Your task to perform on an android device: toggle show notifications on the lock screen Image 0: 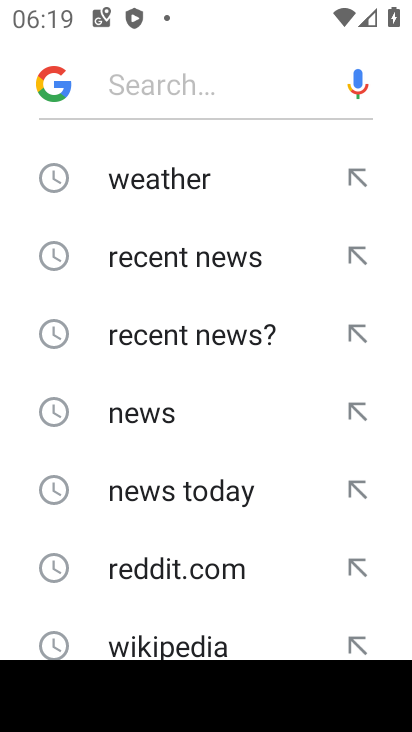
Step 0: press home button
Your task to perform on an android device: toggle show notifications on the lock screen Image 1: 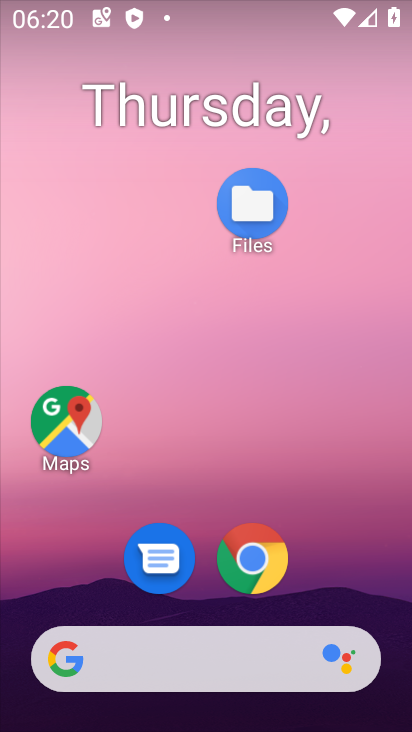
Step 1: drag from (309, 580) to (328, 174)
Your task to perform on an android device: toggle show notifications on the lock screen Image 2: 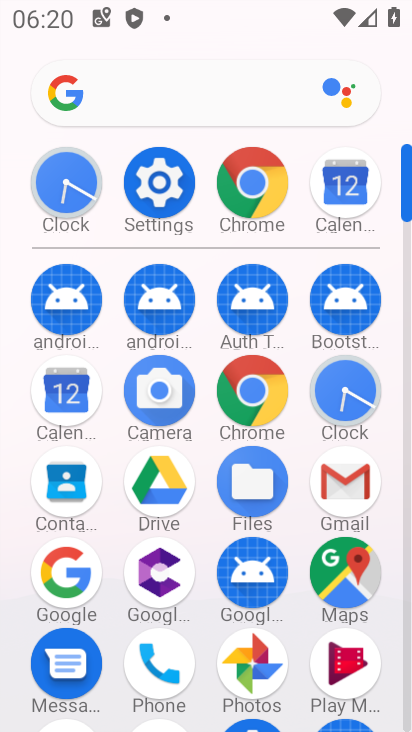
Step 2: click (165, 192)
Your task to perform on an android device: toggle show notifications on the lock screen Image 3: 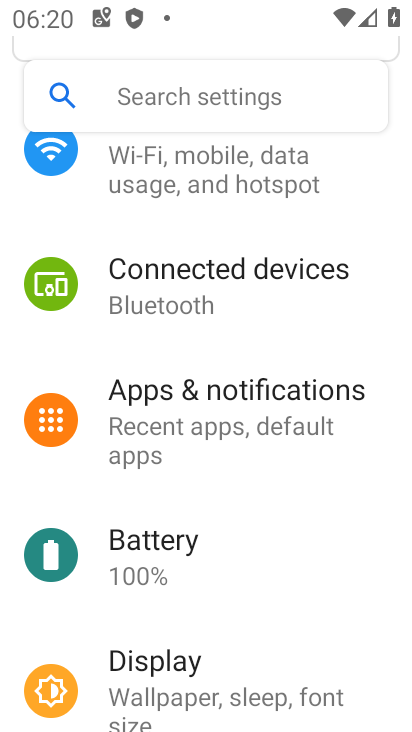
Step 3: drag from (221, 628) to (239, 318)
Your task to perform on an android device: toggle show notifications on the lock screen Image 4: 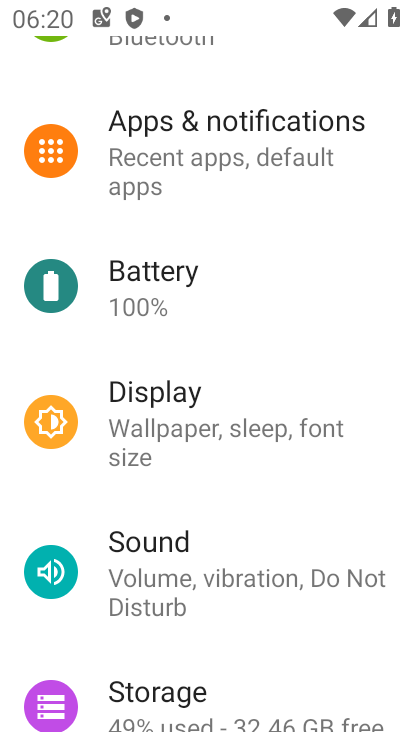
Step 4: click (214, 354)
Your task to perform on an android device: toggle show notifications on the lock screen Image 5: 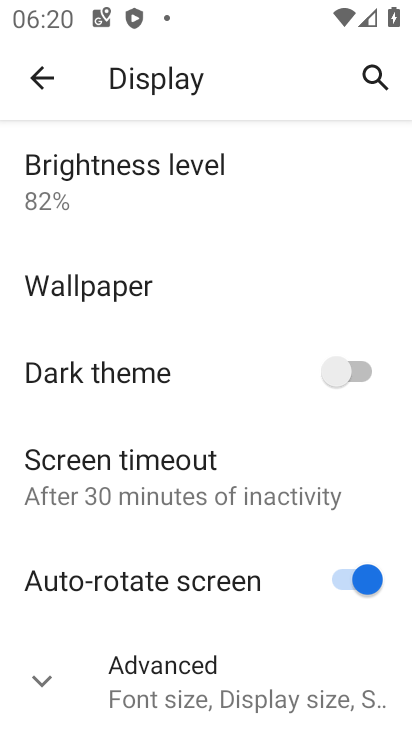
Step 5: click (35, 78)
Your task to perform on an android device: toggle show notifications on the lock screen Image 6: 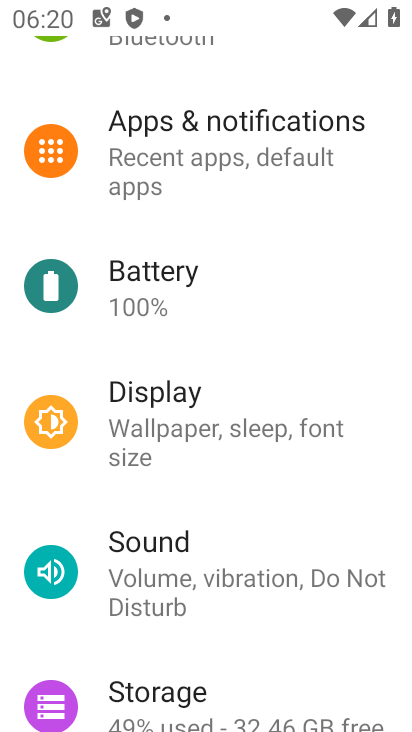
Step 6: click (229, 160)
Your task to perform on an android device: toggle show notifications on the lock screen Image 7: 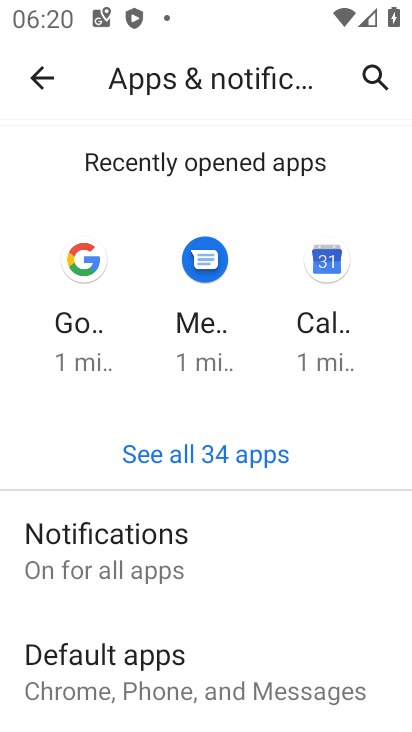
Step 7: click (114, 569)
Your task to perform on an android device: toggle show notifications on the lock screen Image 8: 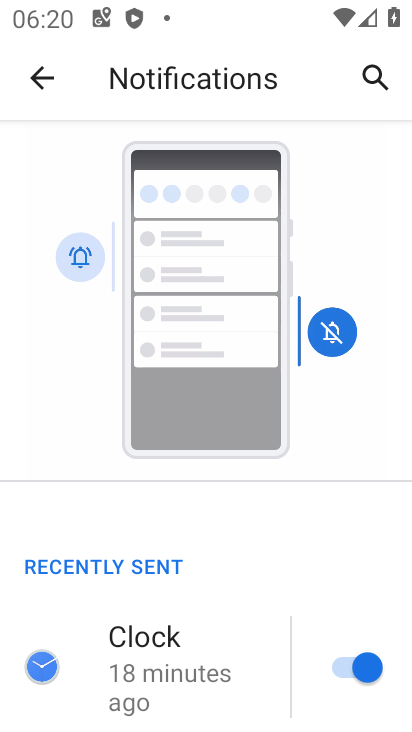
Step 8: drag from (206, 634) to (248, 351)
Your task to perform on an android device: toggle show notifications on the lock screen Image 9: 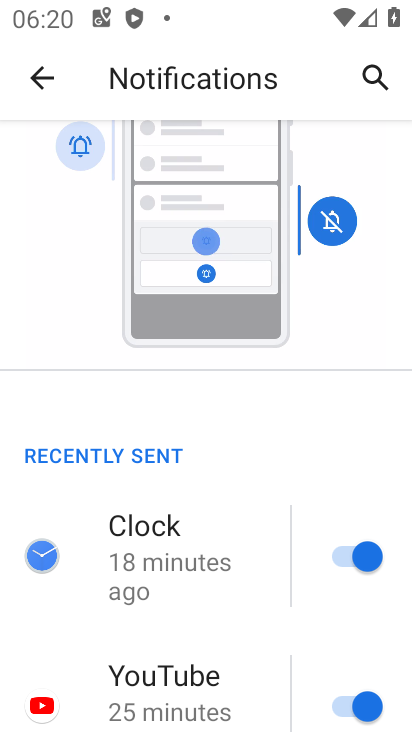
Step 9: drag from (180, 670) to (279, 280)
Your task to perform on an android device: toggle show notifications on the lock screen Image 10: 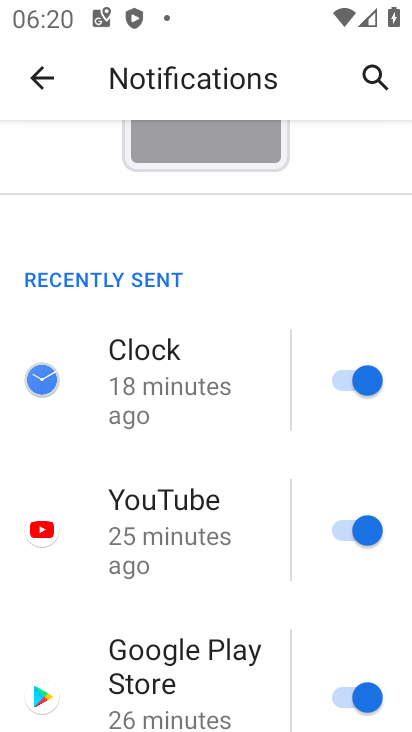
Step 10: drag from (167, 618) to (271, 201)
Your task to perform on an android device: toggle show notifications on the lock screen Image 11: 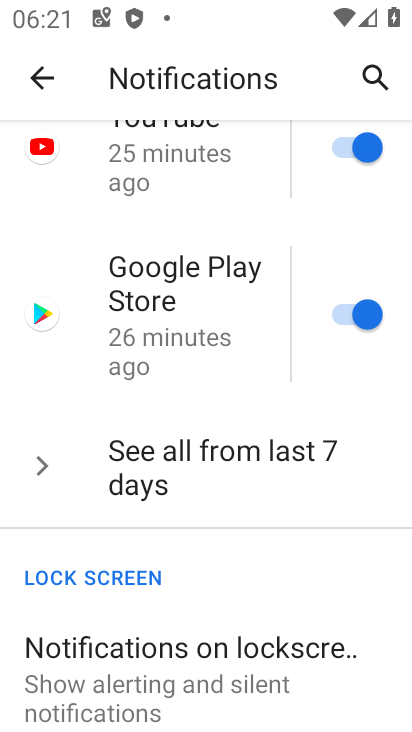
Step 11: click (176, 676)
Your task to perform on an android device: toggle show notifications on the lock screen Image 12: 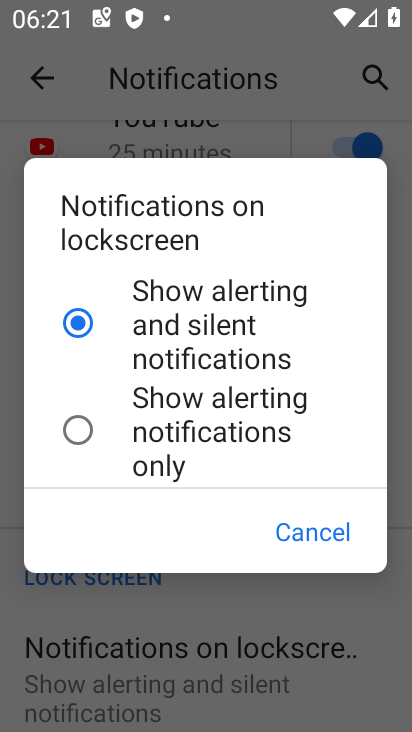
Step 12: click (76, 431)
Your task to perform on an android device: toggle show notifications on the lock screen Image 13: 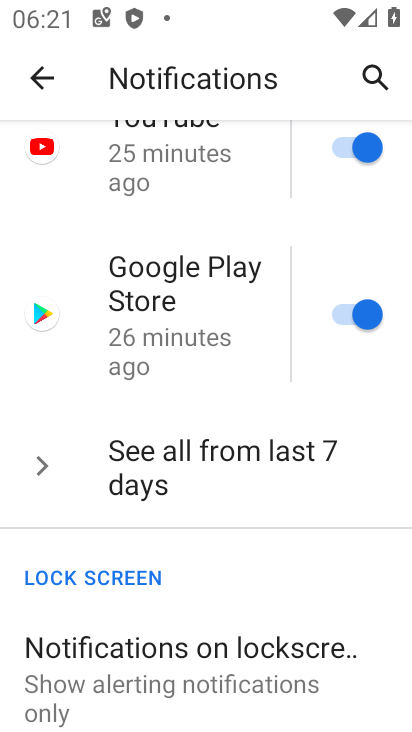
Step 13: click (79, 438)
Your task to perform on an android device: toggle show notifications on the lock screen Image 14: 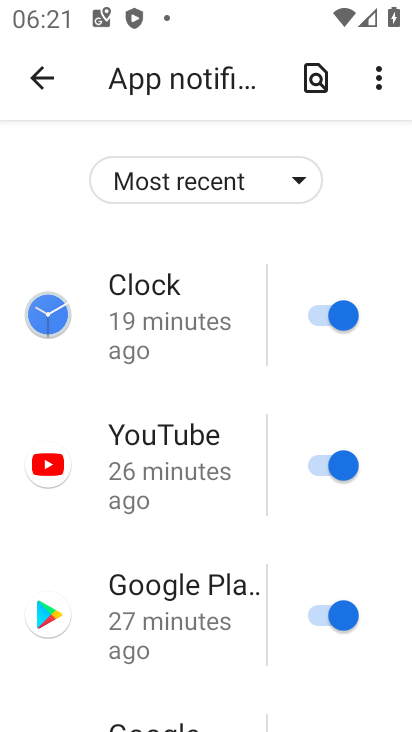
Step 14: task complete